Your task to perform on an android device: Add asus rog to the cart on newegg Image 0: 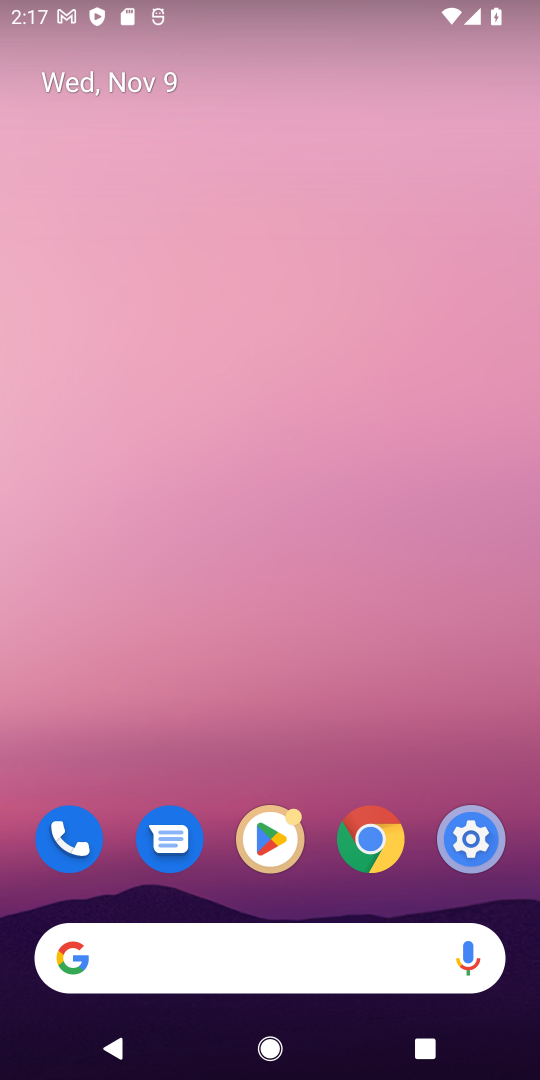
Step 0: click (199, 953)
Your task to perform on an android device: Add asus rog to the cart on newegg Image 1: 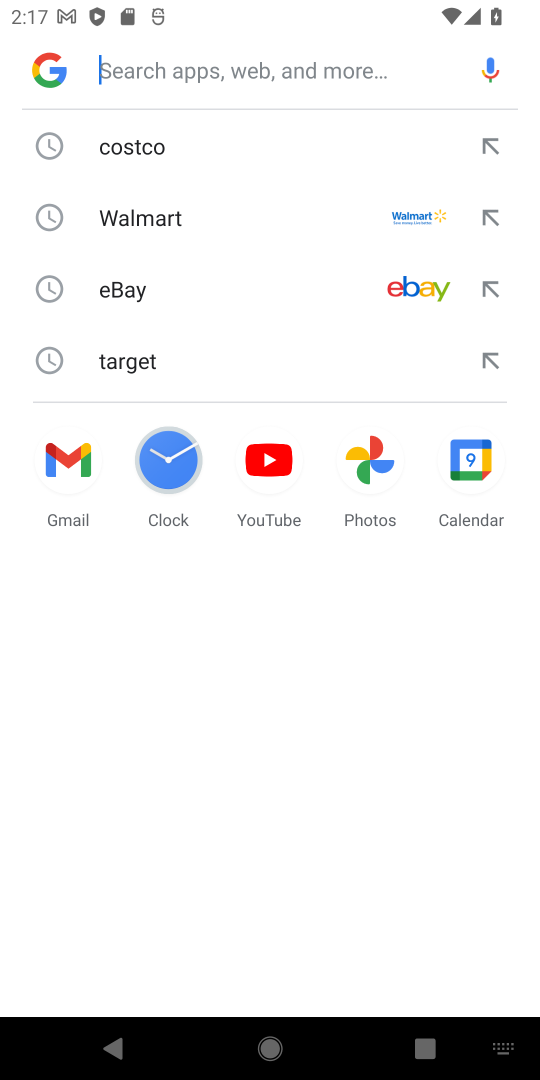
Step 1: type "newegg"
Your task to perform on an android device: Add asus rog to the cart on newegg Image 2: 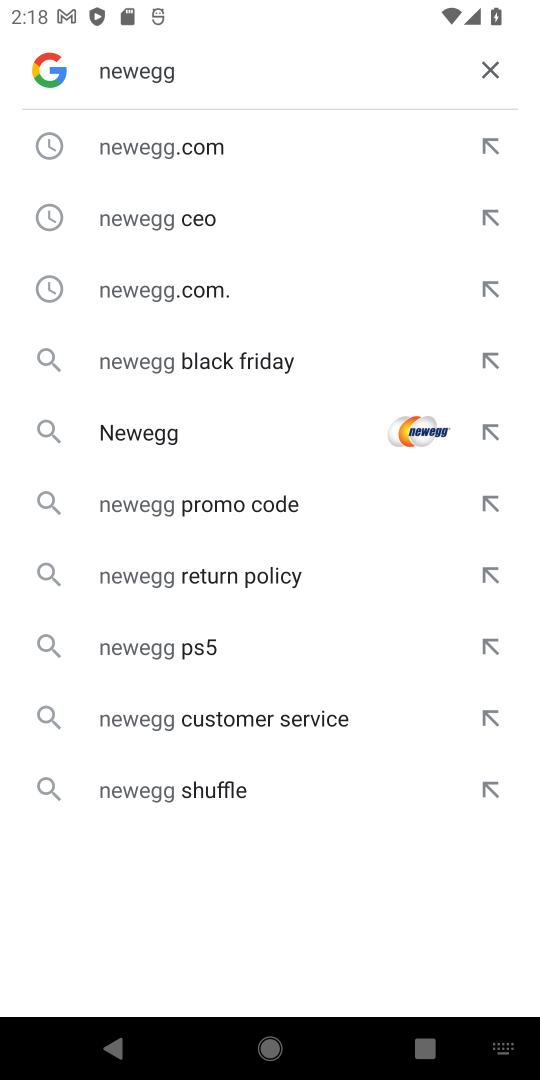
Step 2: click (149, 169)
Your task to perform on an android device: Add asus rog to the cart on newegg Image 3: 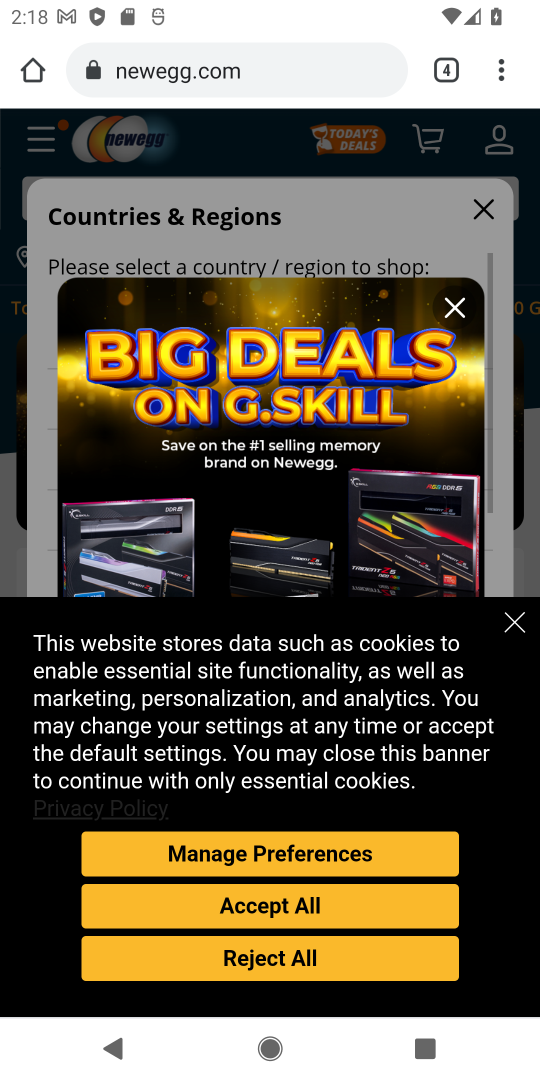
Step 3: task complete